Your task to perform on an android device: change notifications settings Image 0: 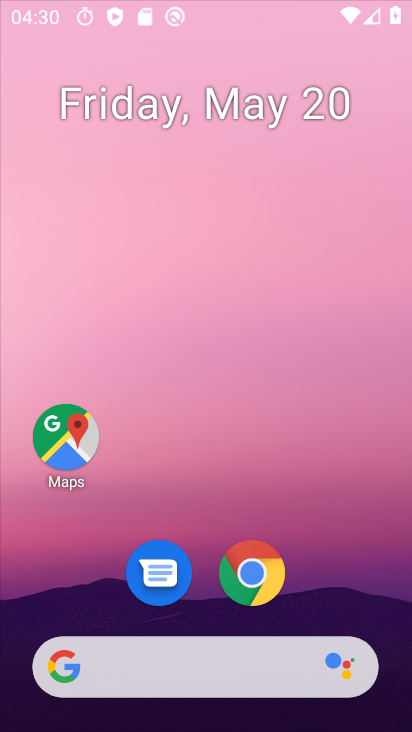
Step 0: click (135, 220)
Your task to perform on an android device: change notifications settings Image 1: 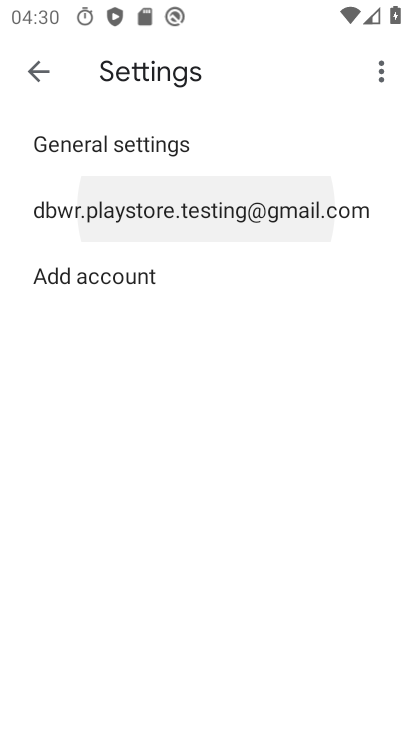
Step 1: drag from (239, 541) to (149, 124)
Your task to perform on an android device: change notifications settings Image 2: 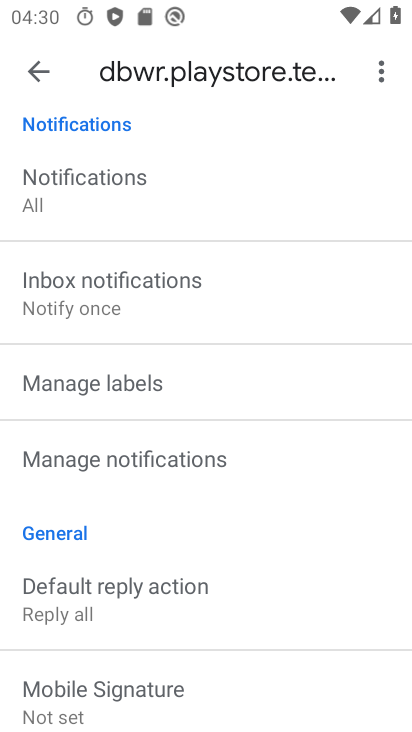
Step 2: click (85, 187)
Your task to perform on an android device: change notifications settings Image 3: 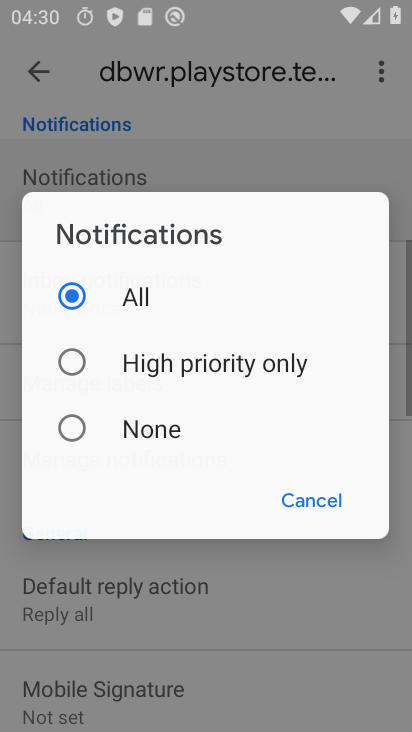
Step 3: click (85, 185)
Your task to perform on an android device: change notifications settings Image 4: 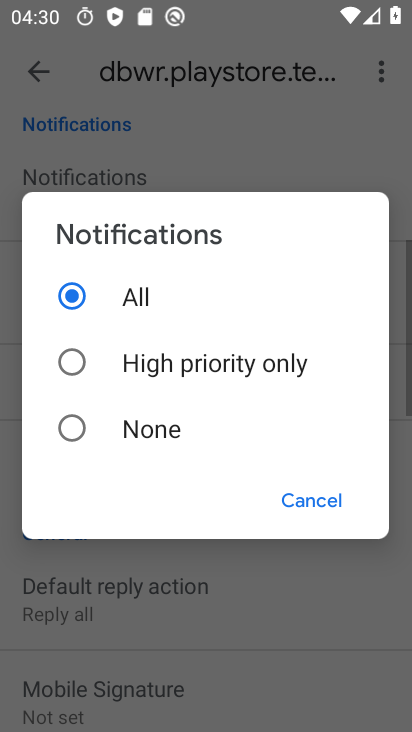
Step 4: click (85, 185)
Your task to perform on an android device: change notifications settings Image 5: 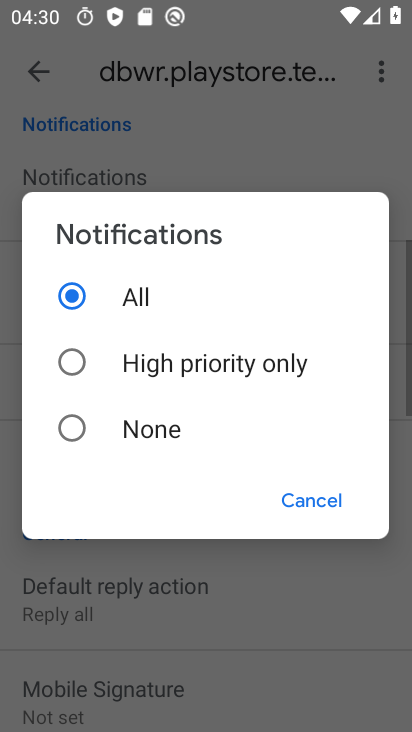
Step 5: click (85, 185)
Your task to perform on an android device: change notifications settings Image 6: 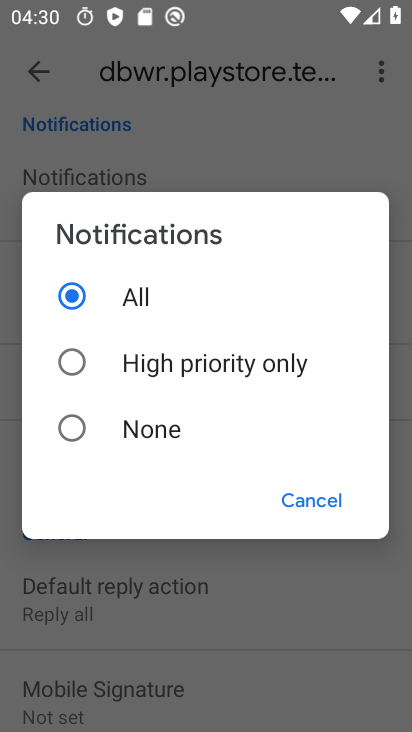
Step 6: click (301, 495)
Your task to perform on an android device: change notifications settings Image 7: 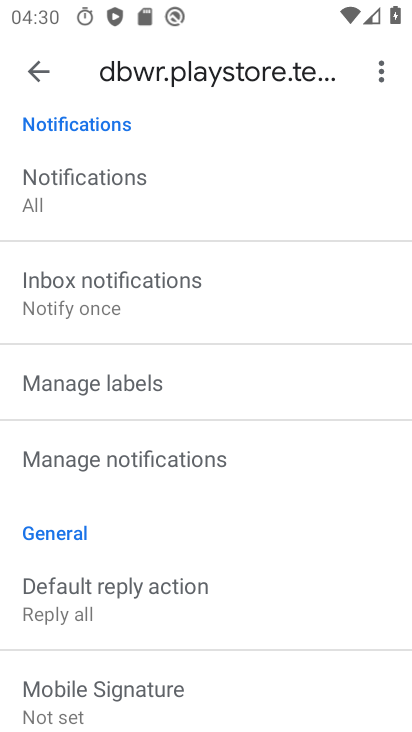
Step 7: task complete